Your task to perform on an android device: snooze an email in the gmail app Image 0: 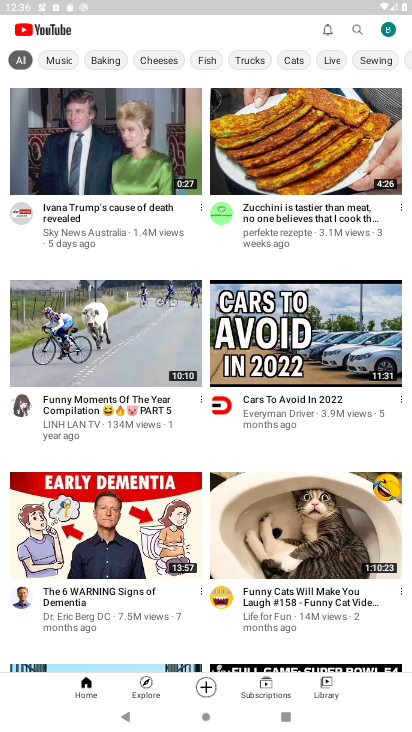
Step 0: press home button
Your task to perform on an android device: snooze an email in the gmail app Image 1: 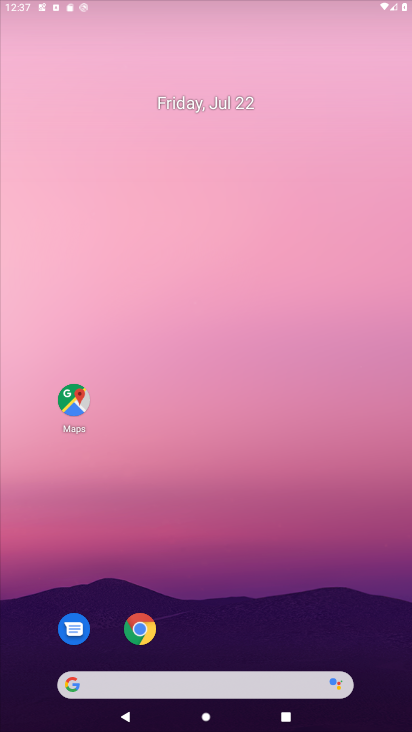
Step 1: drag from (299, 583) to (229, 125)
Your task to perform on an android device: snooze an email in the gmail app Image 2: 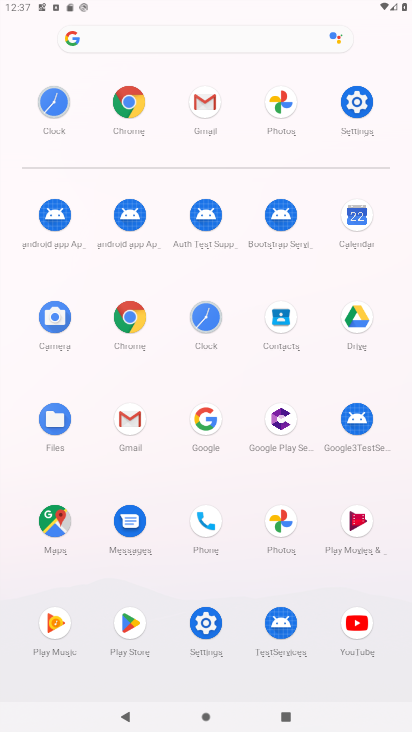
Step 2: click (143, 414)
Your task to perform on an android device: snooze an email in the gmail app Image 3: 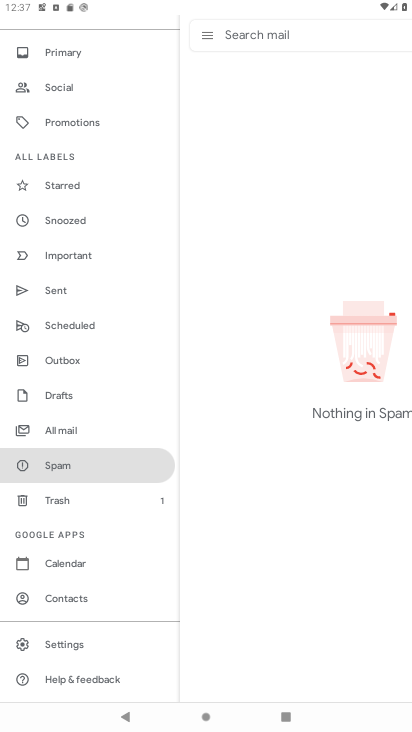
Step 3: click (83, 424)
Your task to perform on an android device: snooze an email in the gmail app Image 4: 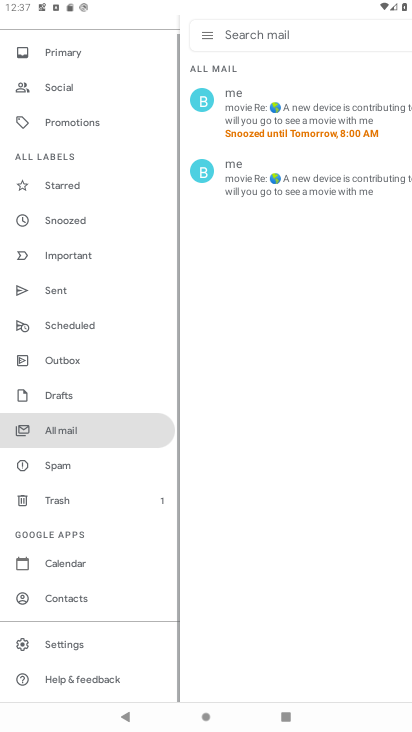
Step 4: click (255, 176)
Your task to perform on an android device: snooze an email in the gmail app Image 5: 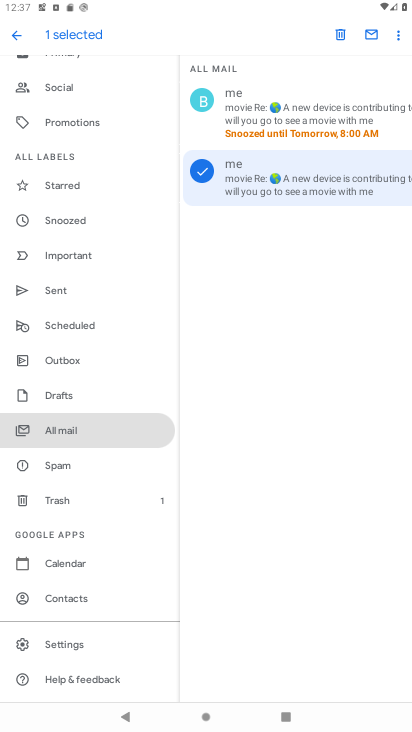
Step 5: click (400, 38)
Your task to perform on an android device: snooze an email in the gmail app Image 6: 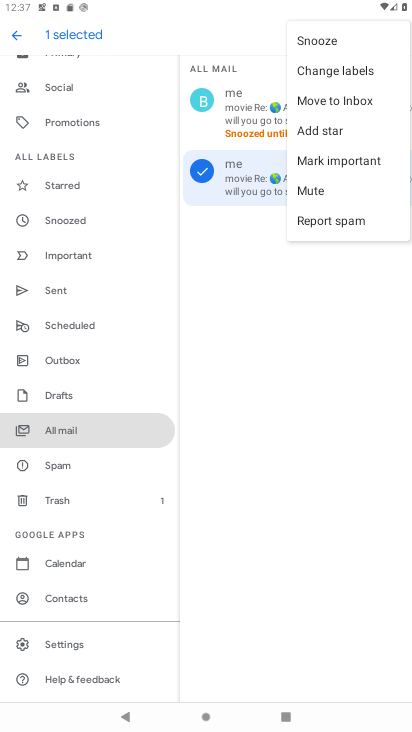
Step 6: click (321, 41)
Your task to perform on an android device: snooze an email in the gmail app Image 7: 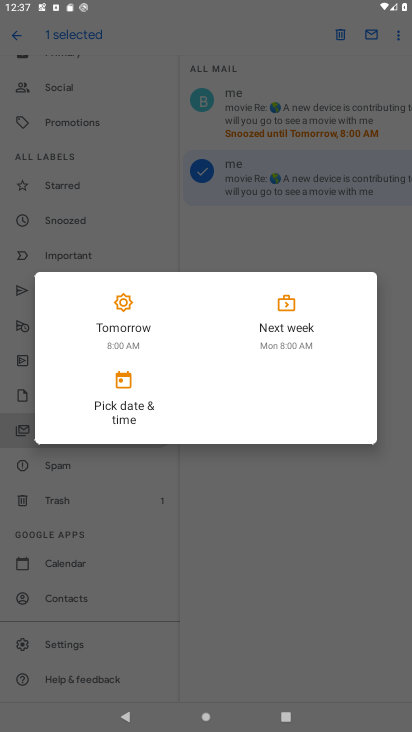
Step 7: click (296, 338)
Your task to perform on an android device: snooze an email in the gmail app Image 8: 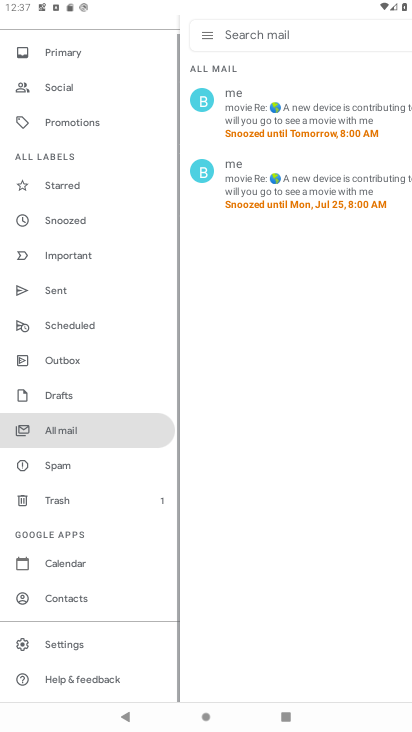
Step 8: task complete